Your task to perform on an android device: Go to calendar. Show me events next week Image 0: 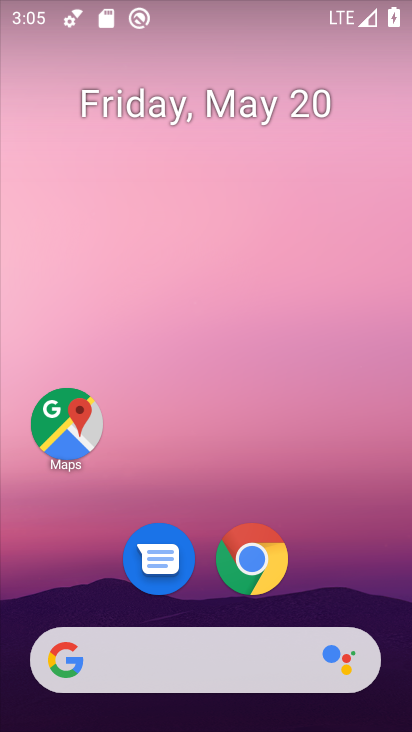
Step 0: drag from (261, 450) to (301, 14)
Your task to perform on an android device: Go to calendar. Show me events next week Image 1: 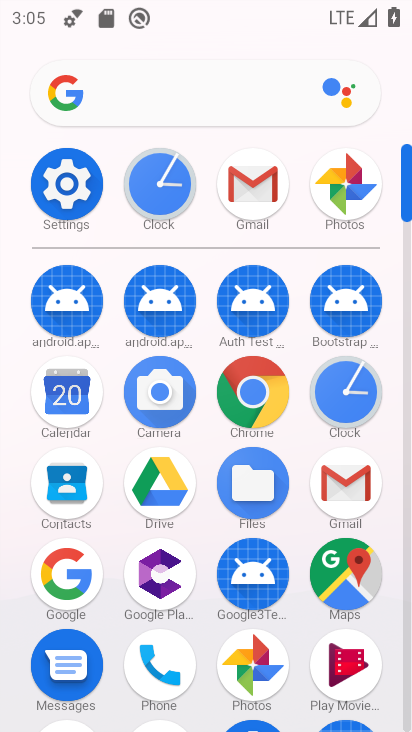
Step 1: click (66, 390)
Your task to perform on an android device: Go to calendar. Show me events next week Image 2: 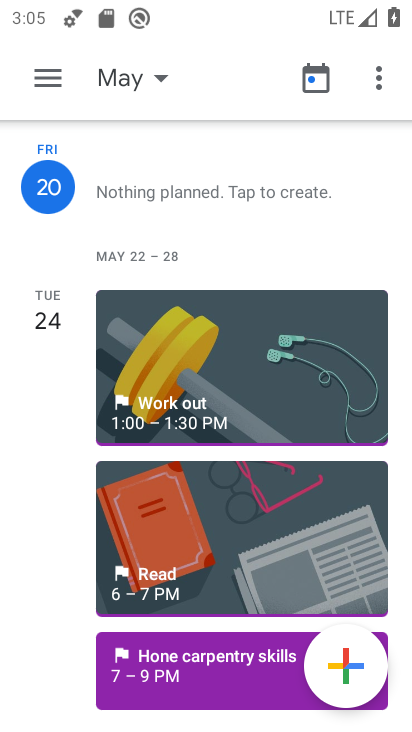
Step 2: click (49, 76)
Your task to perform on an android device: Go to calendar. Show me events next week Image 3: 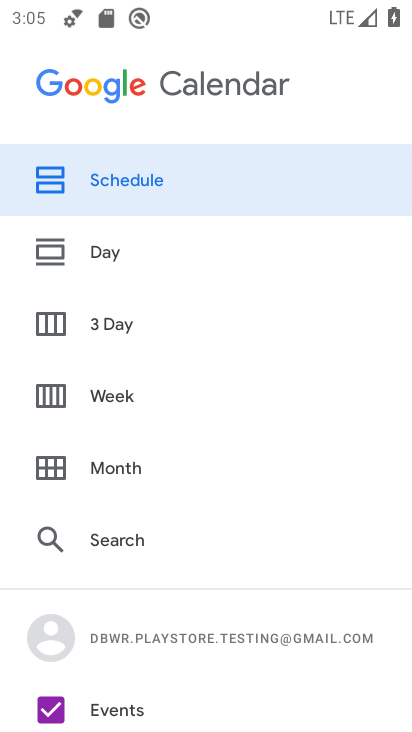
Step 3: click (52, 390)
Your task to perform on an android device: Go to calendar. Show me events next week Image 4: 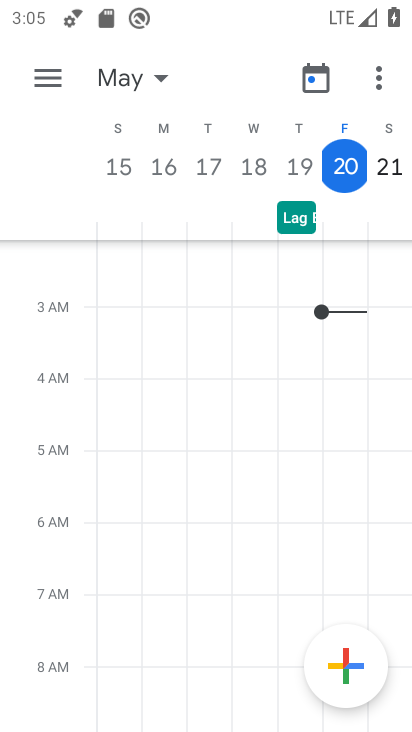
Step 4: task complete